Your task to perform on an android device: Clear the cart on ebay.com. Search for "apple airpods pro" on ebay.com, select the first entry, and add it to the cart. Image 0: 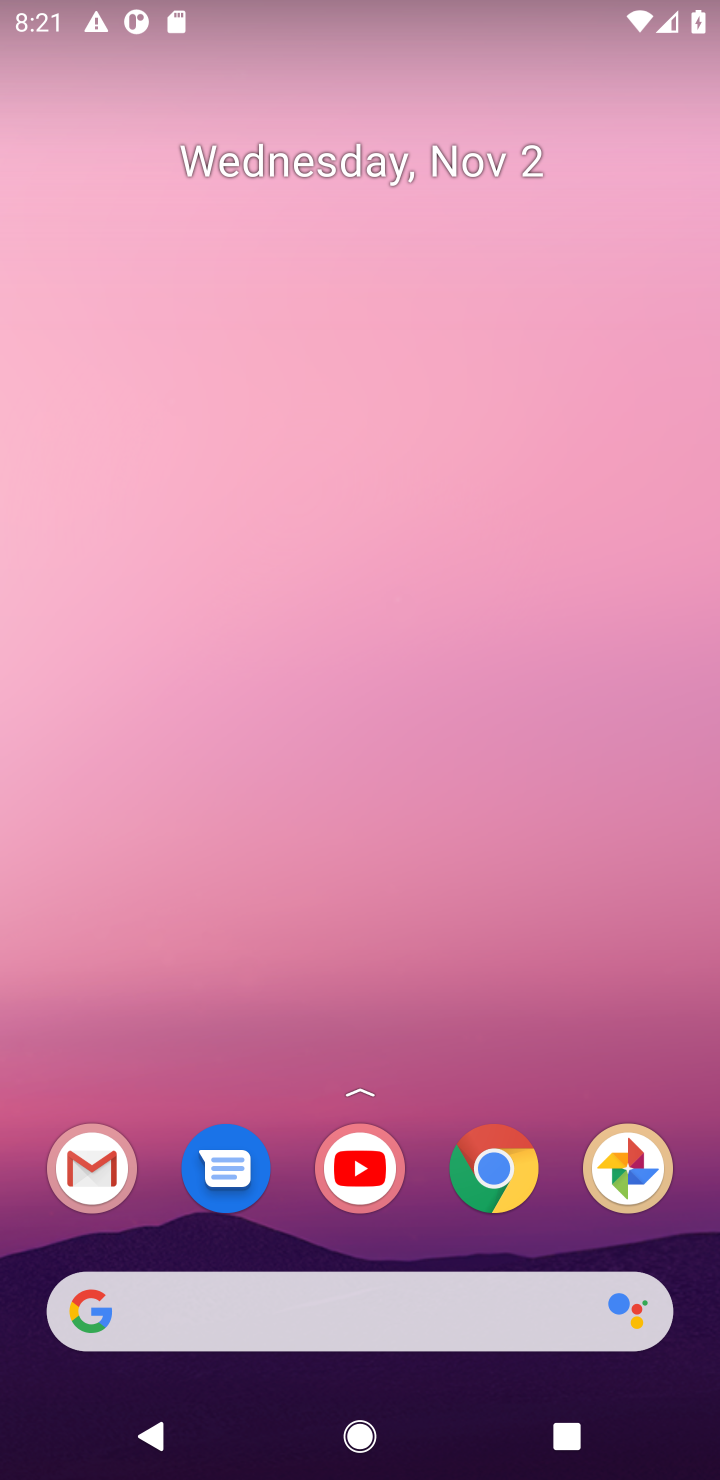
Step 0: click (500, 1170)
Your task to perform on an android device: Clear the cart on ebay.com. Search for "apple airpods pro" on ebay.com, select the first entry, and add it to the cart. Image 1: 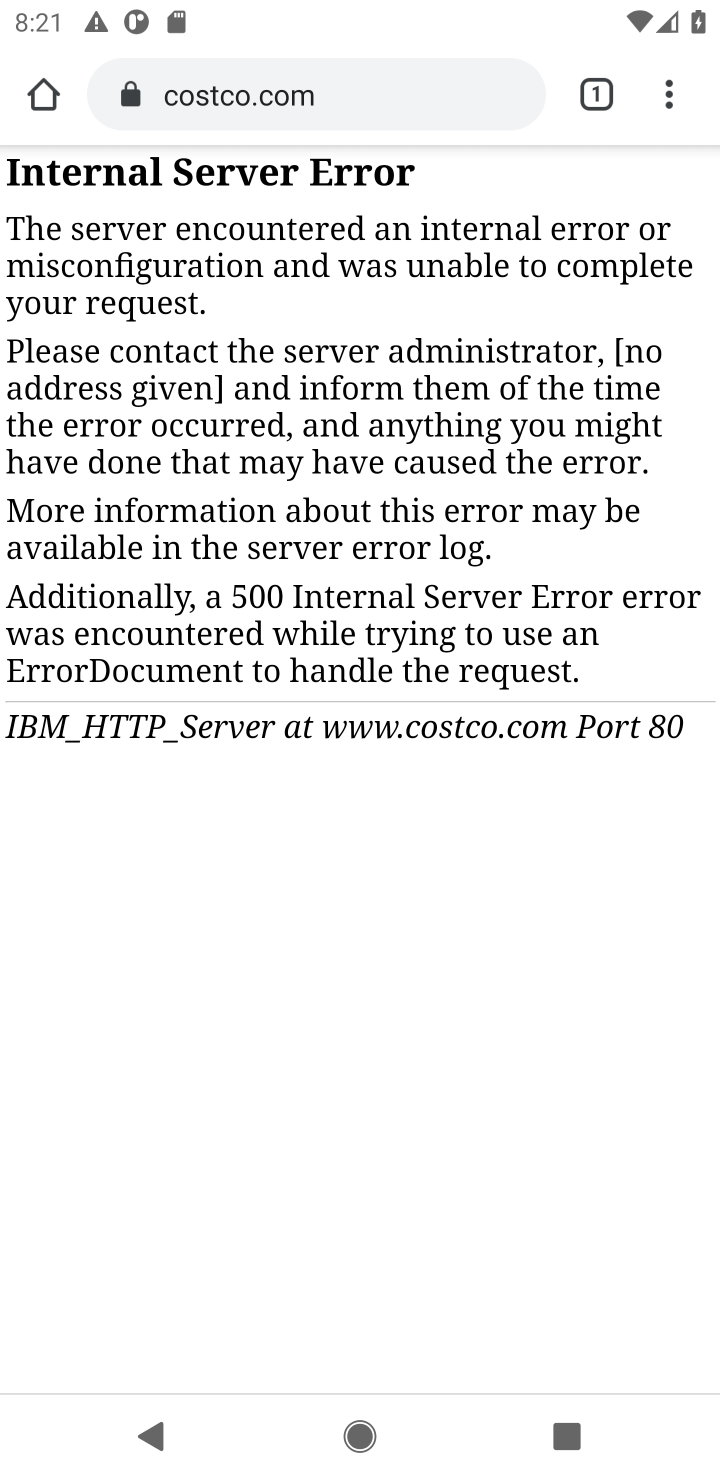
Step 1: click (442, 105)
Your task to perform on an android device: Clear the cart on ebay.com. Search for "apple airpods pro" on ebay.com, select the first entry, and add it to the cart. Image 2: 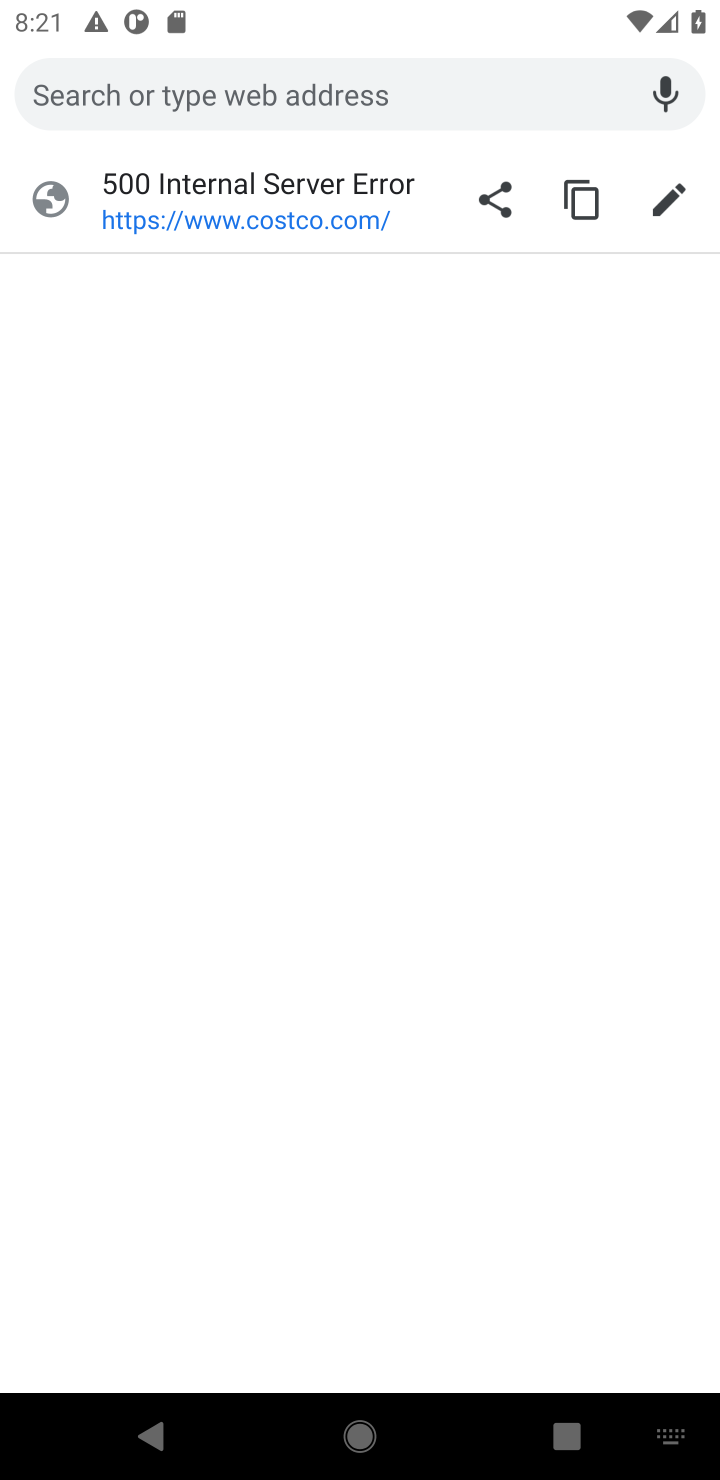
Step 2: type "ebay.com"
Your task to perform on an android device: Clear the cart on ebay.com. Search for "apple airpods pro" on ebay.com, select the first entry, and add it to the cart. Image 3: 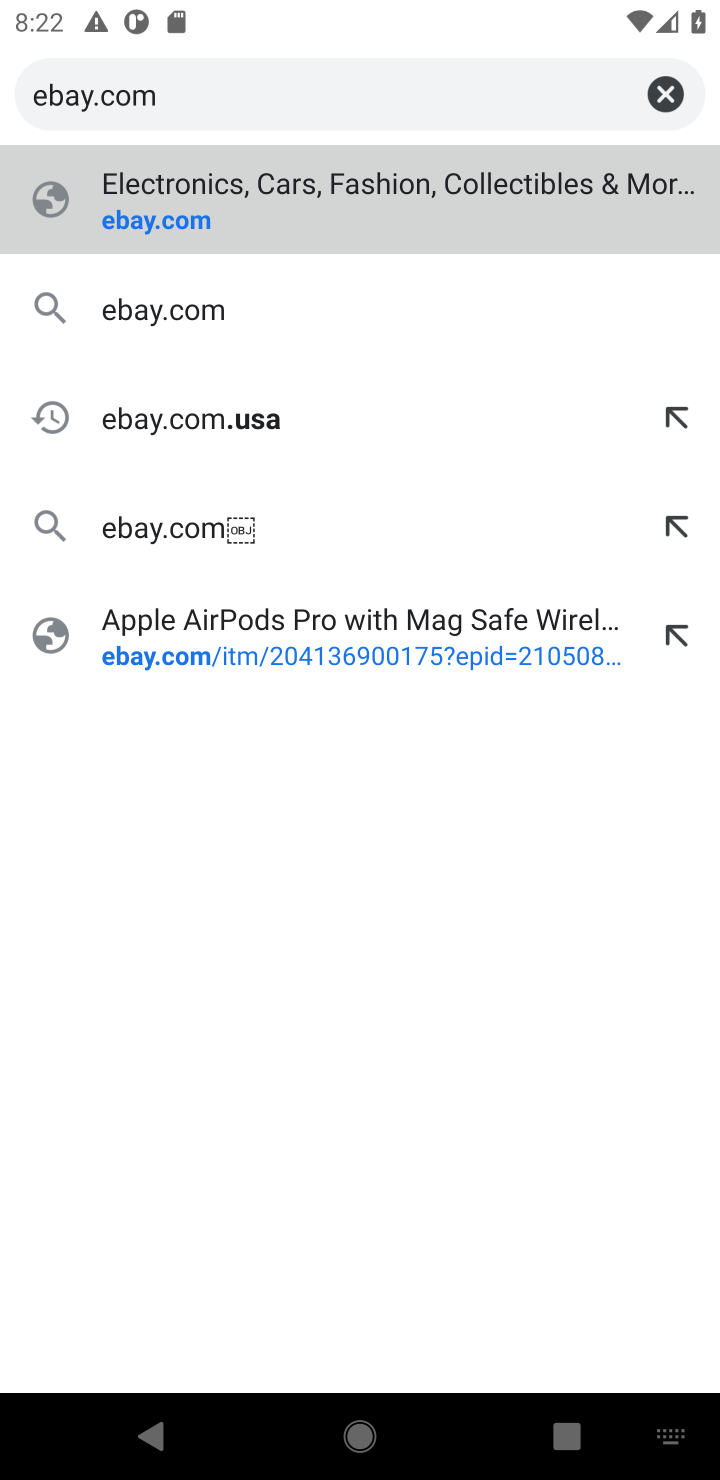
Step 3: click (176, 306)
Your task to perform on an android device: Clear the cart on ebay.com. Search for "apple airpods pro" on ebay.com, select the first entry, and add it to the cart. Image 4: 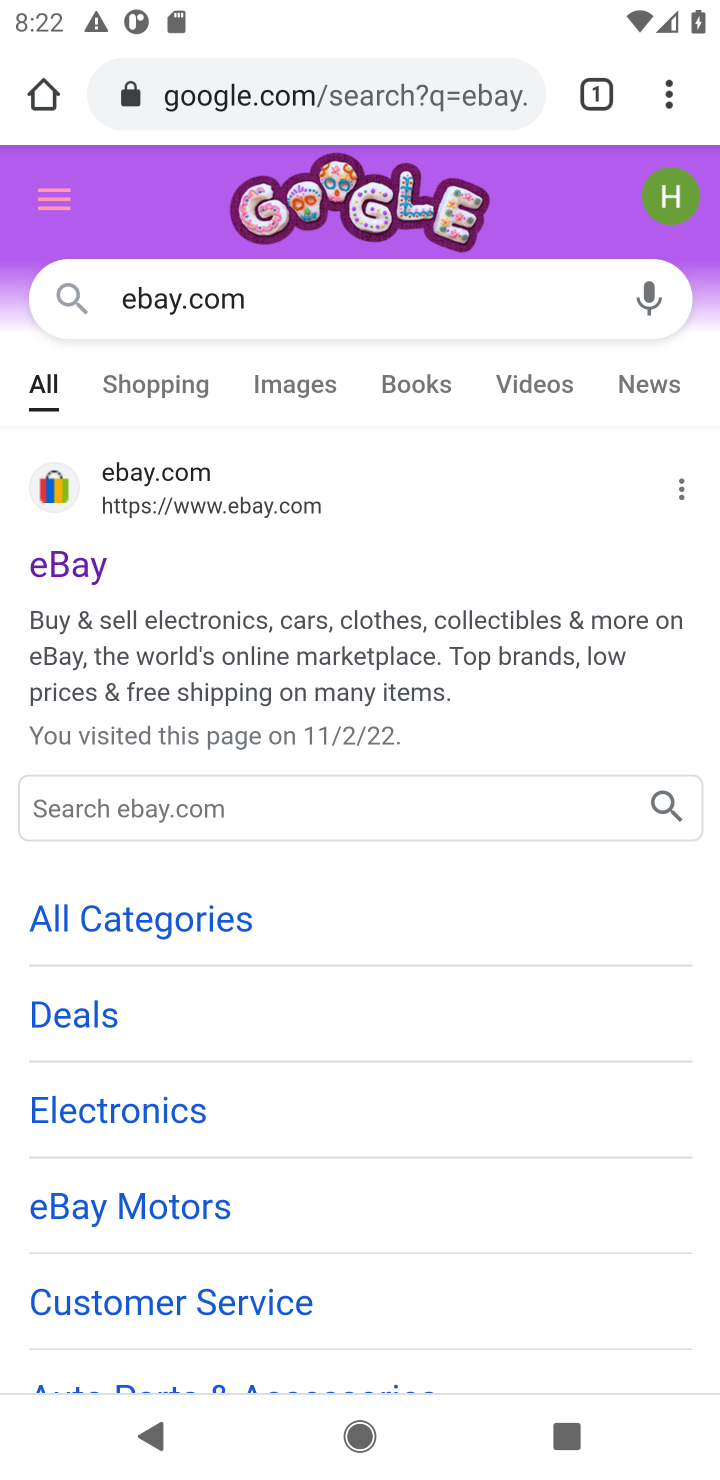
Step 4: click (187, 549)
Your task to perform on an android device: Clear the cart on ebay.com. Search for "apple airpods pro" on ebay.com, select the first entry, and add it to the cart. Image 5: 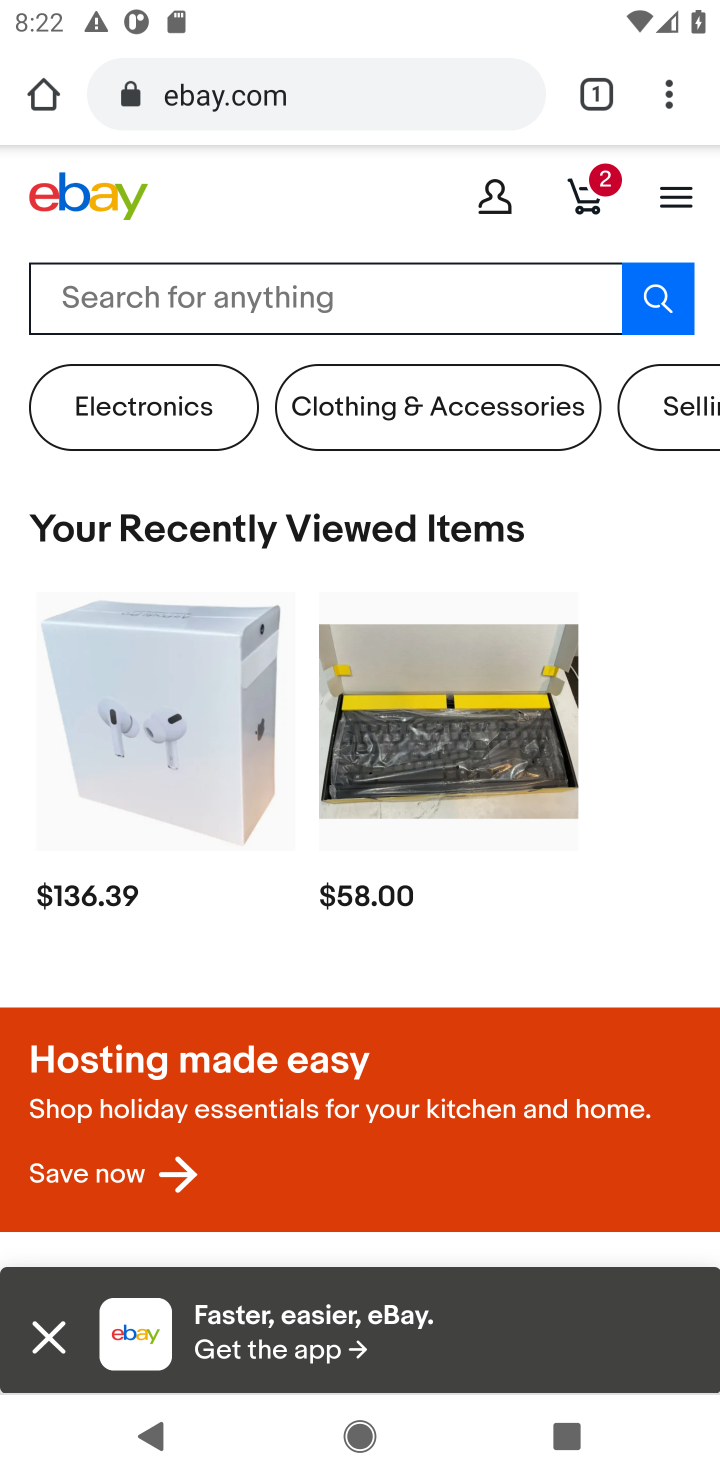
Step 5: click (594, 201)
Your task to perform on an android device: Clear the cart on ebay.com. Search for "apple airpods pro" on ebay.com, select the first entry, and add it to the cart. Image 6: 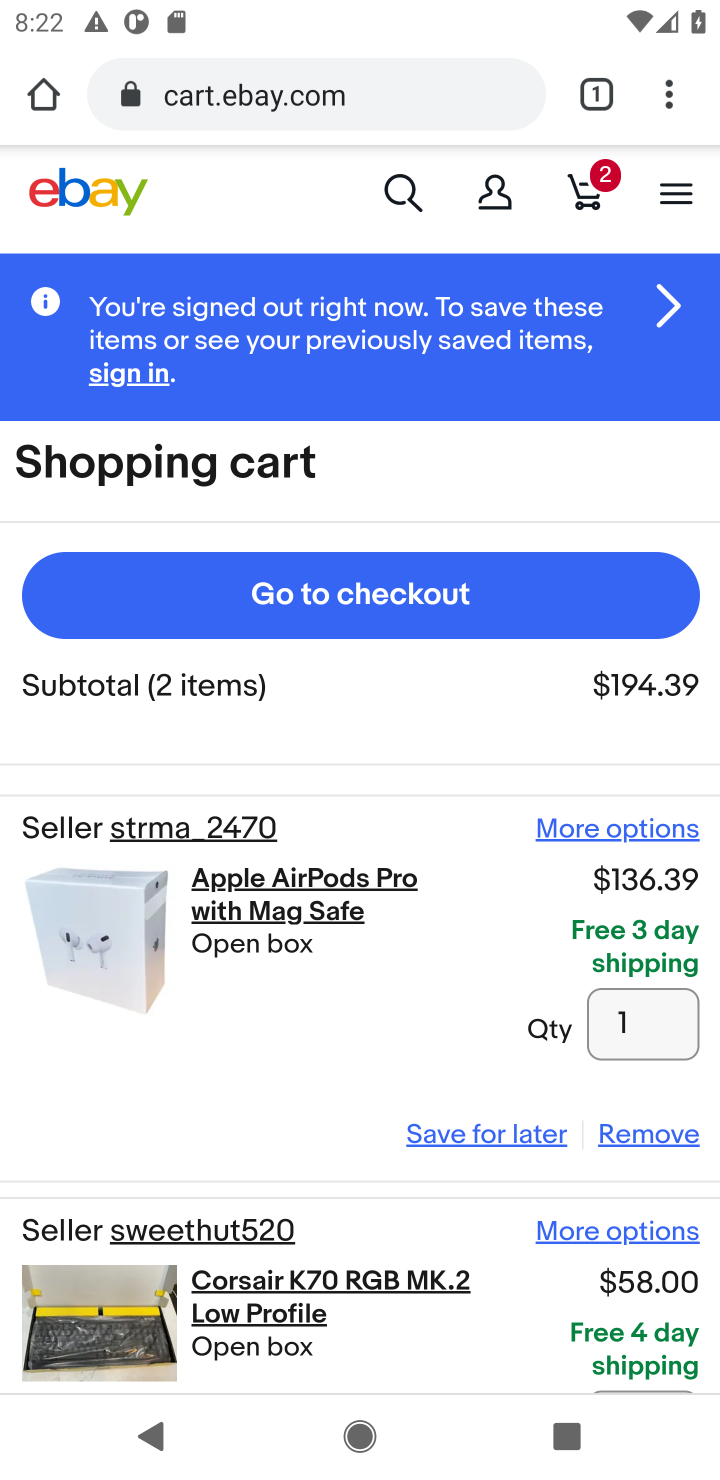
Step 6: click (634, 1138)
Your task to perform on an android device: Clear the cart on ebay.com. Search for "apple airpods pro" on ebay.com, select the first entry, and add it to the cart. Image 7: 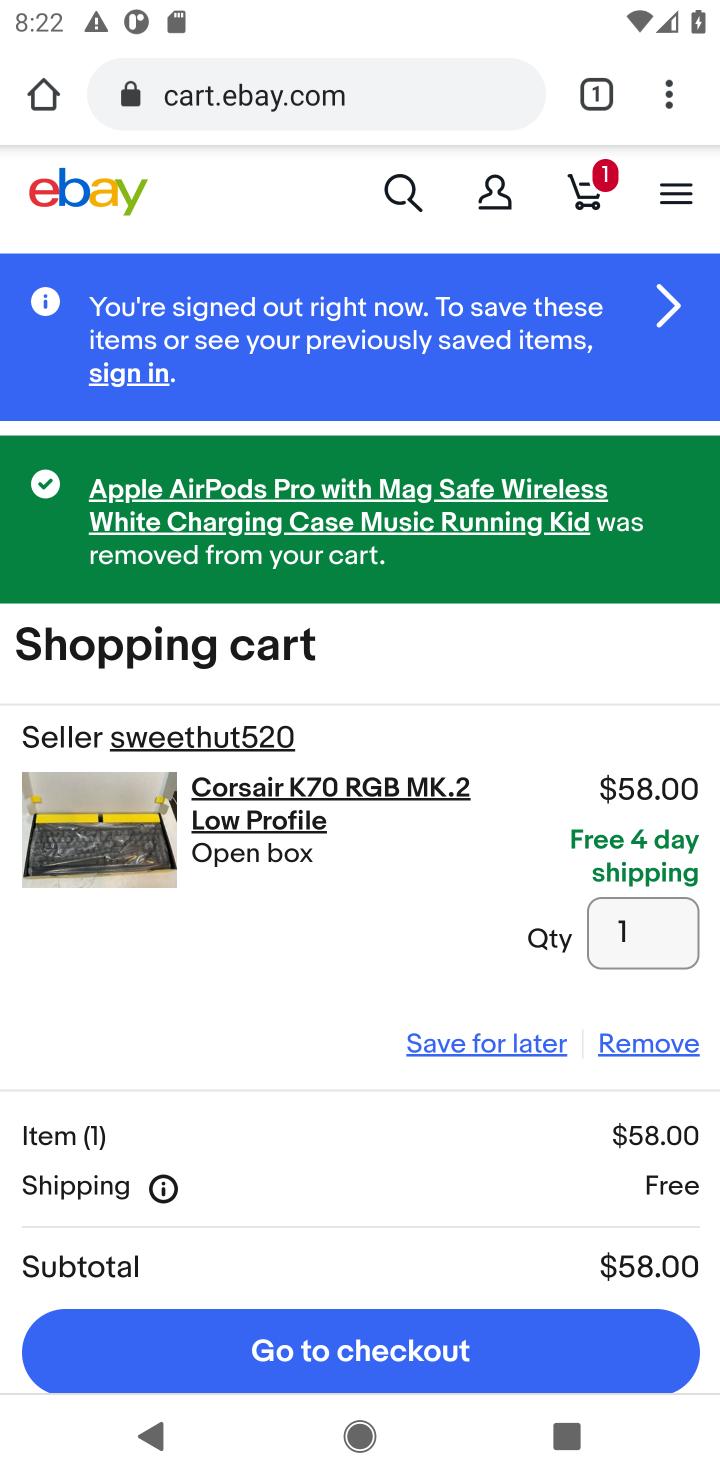
Step 7: click (655, 1051)
Your task to perform on an android device: Clear the cart on ebay.com. Search for "apple airpods pro" on ebay.com, select the first entry, and add it to the cart. Image 8: 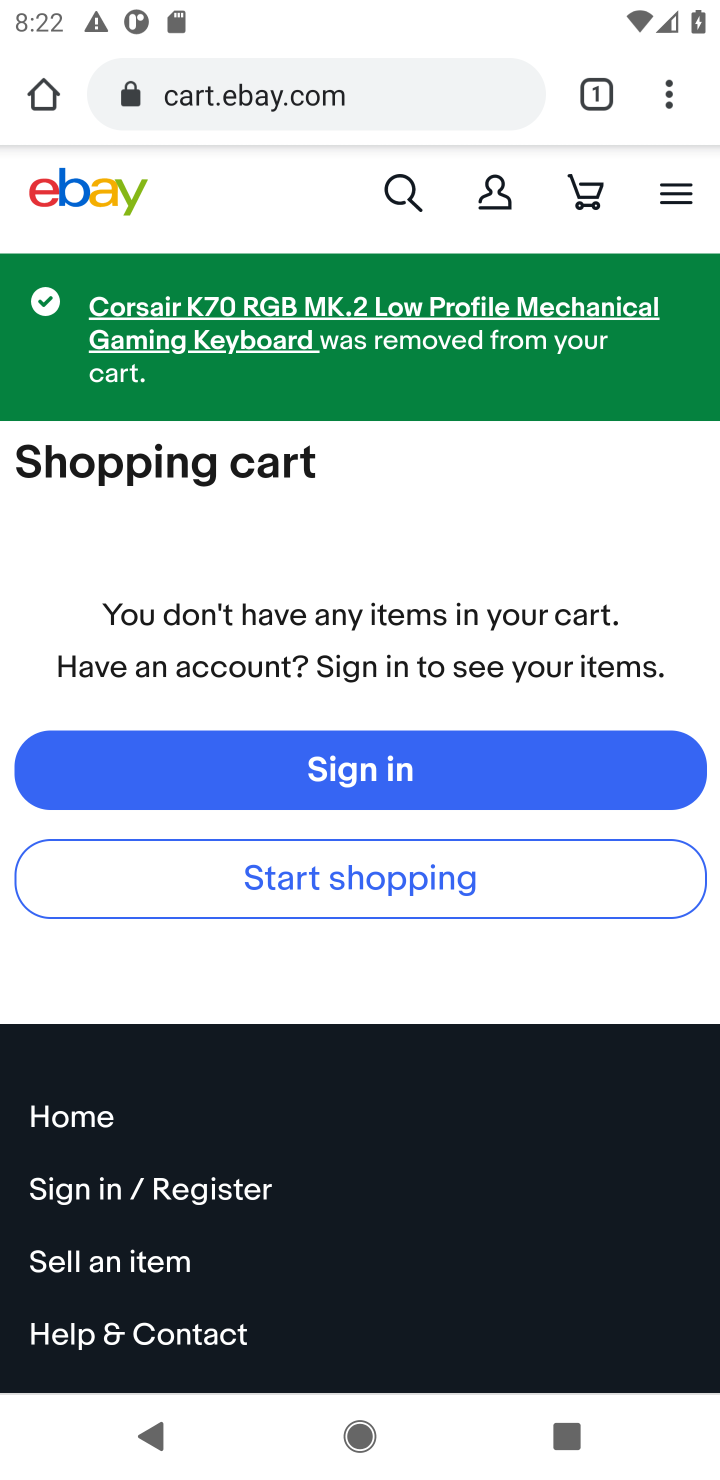
Step 8: click (395, 187)
Your task to perform on an android device: Clear the cart on ebay.com. Search for "apple airpods pro" on ebay.com, select the first entry, and add it to the cart. Image 9: 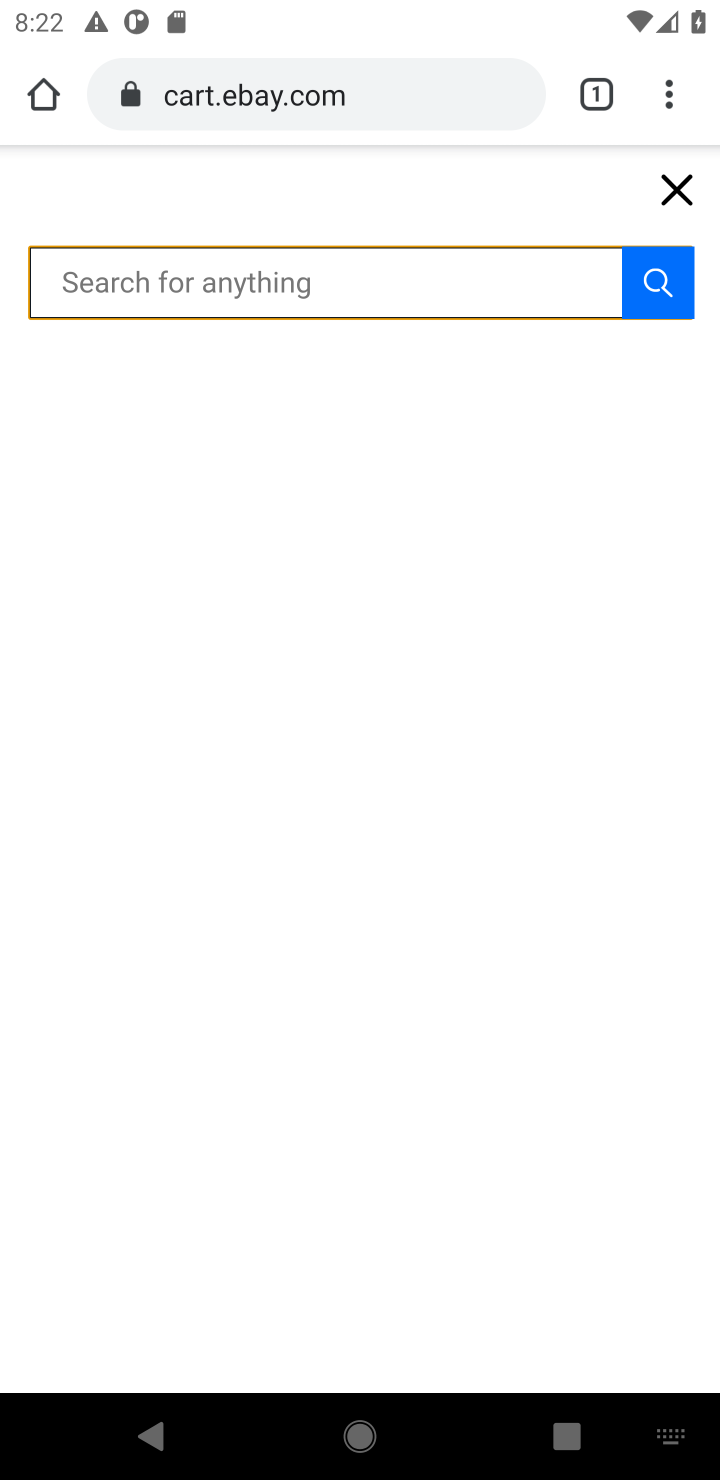
Step 9: type "apple airpods pro"
Your task to perform on an android device: Clear the cart on ebay.com. Search for "apple airpods pro" on ebay.com, select the first entry, and add it to the cart. Image 10: 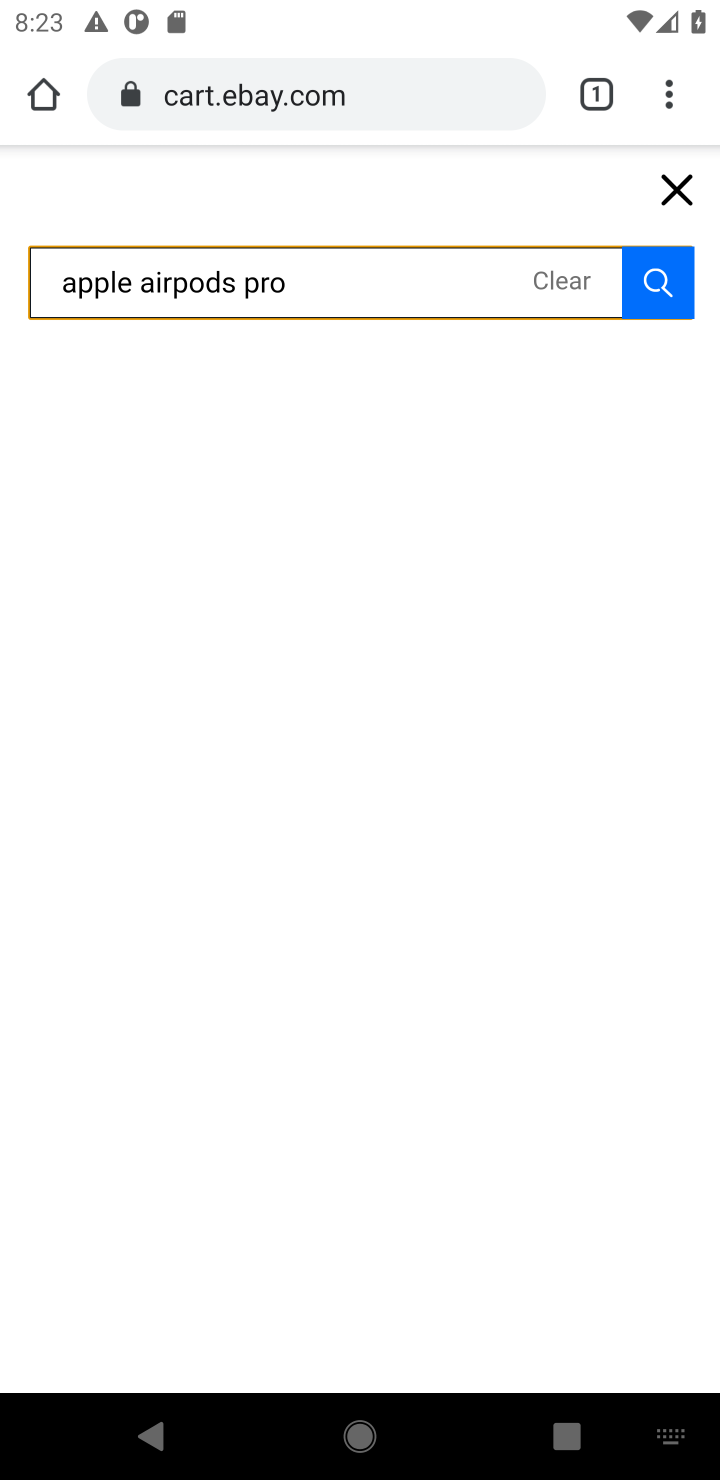
Step 10: click (661, 283)
Your task to perform on an android device: Clear the cart on ebay.com. Search for "apple airpods pro" on ebay.com, select the first entry, and add it to the cart. Image 11: 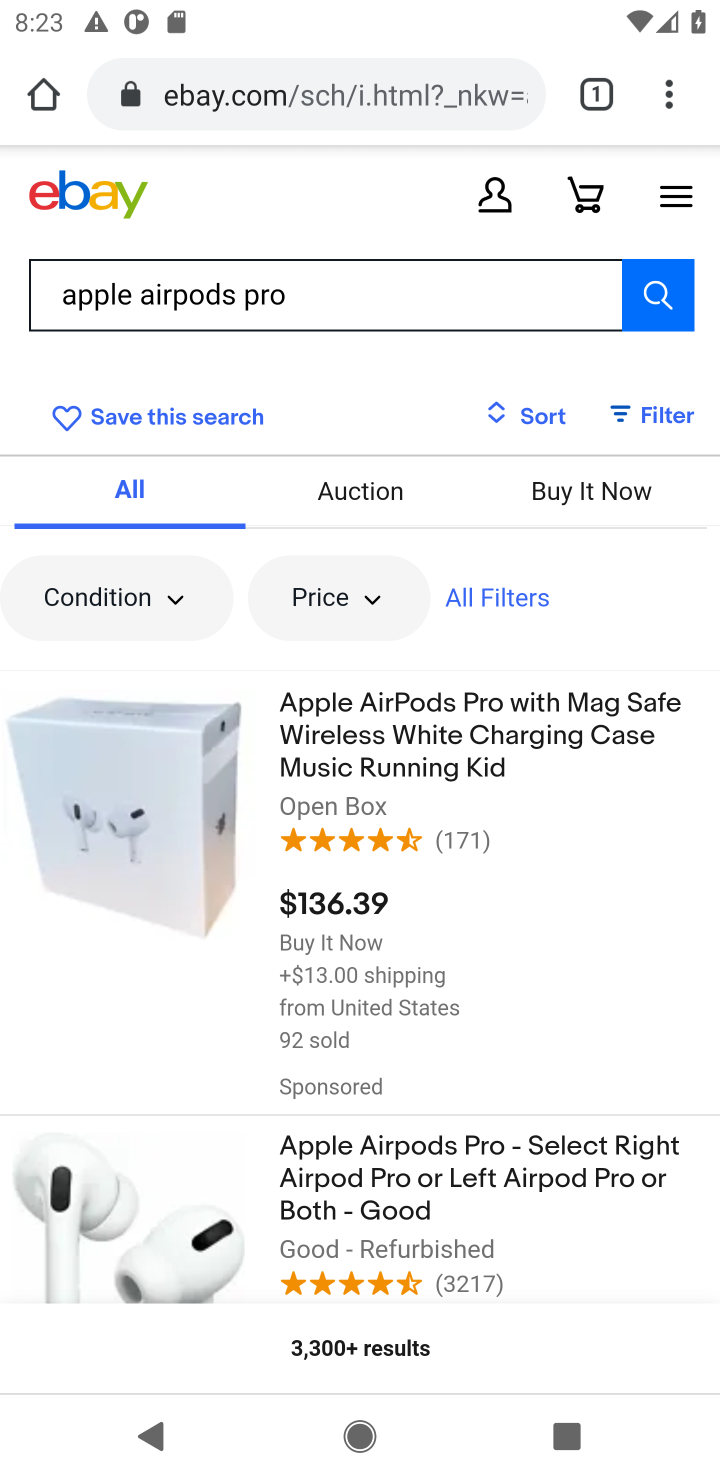
Step 11: click (420, 743)
Your task to perform on an android device: Clear the cart on ebay.com. Search for "apple airpods pro" on ebay.com, select the first entry, and add it to the cart. Image 12: 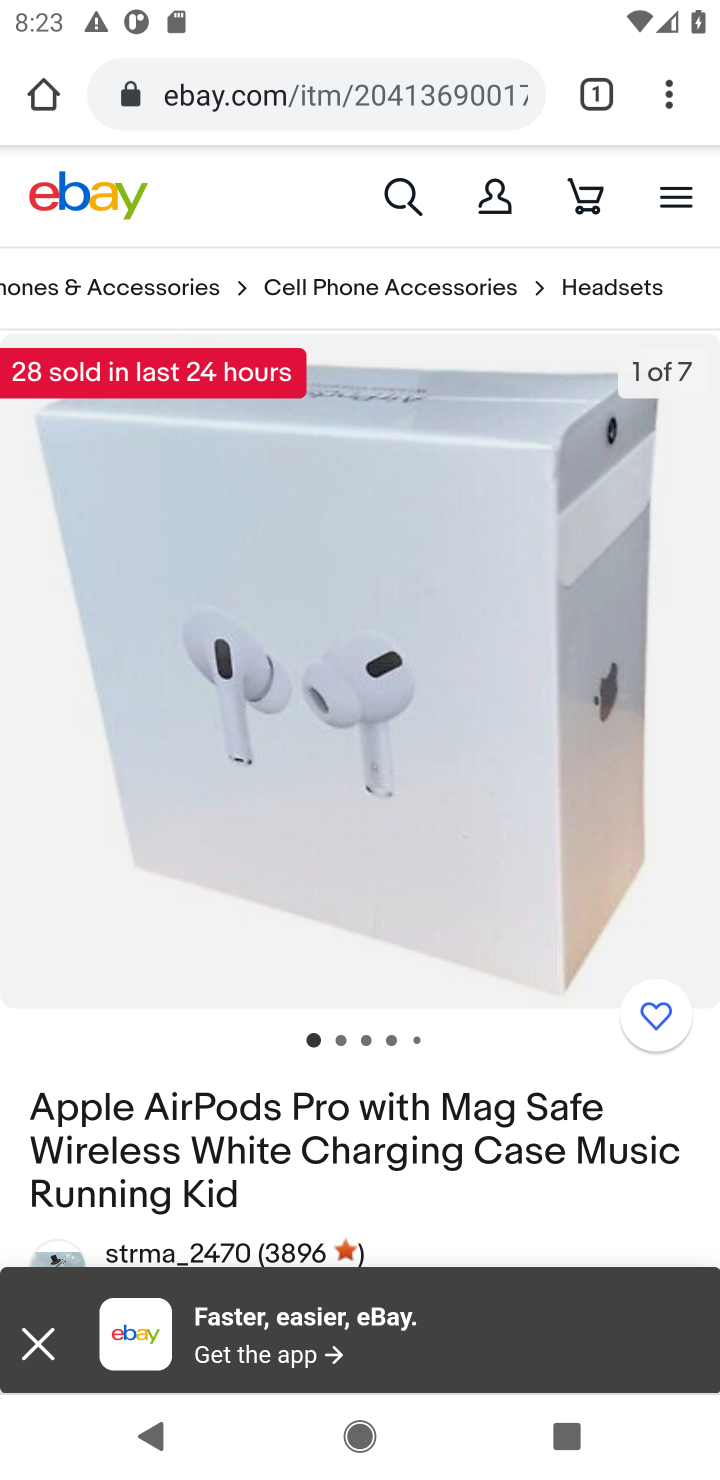
Step 12: drag from (498, 1197) to (500, 635)
Your task to perform on an android device: Clear the cart on ebay.com. Search for "apple airpods pro" on ebay.com, select the first entry, and add it to the cart. Image 13: 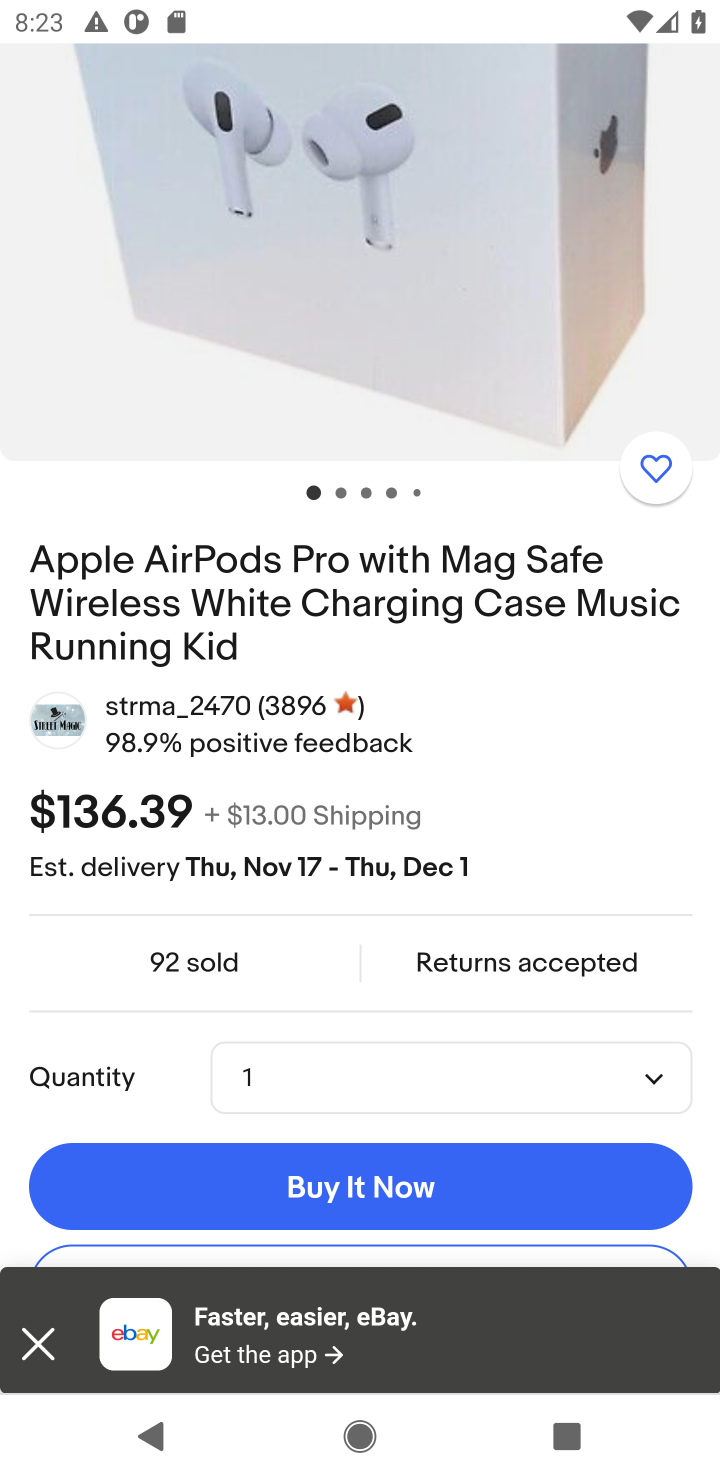
Step 13: drag from (538, 821) to (534, 417)
Your task to perform on an android device: Clear the cart on ebay.com. Search for "apple airpods pro" on ebay.com, select the first entry, and add it to the cart. Image 14: 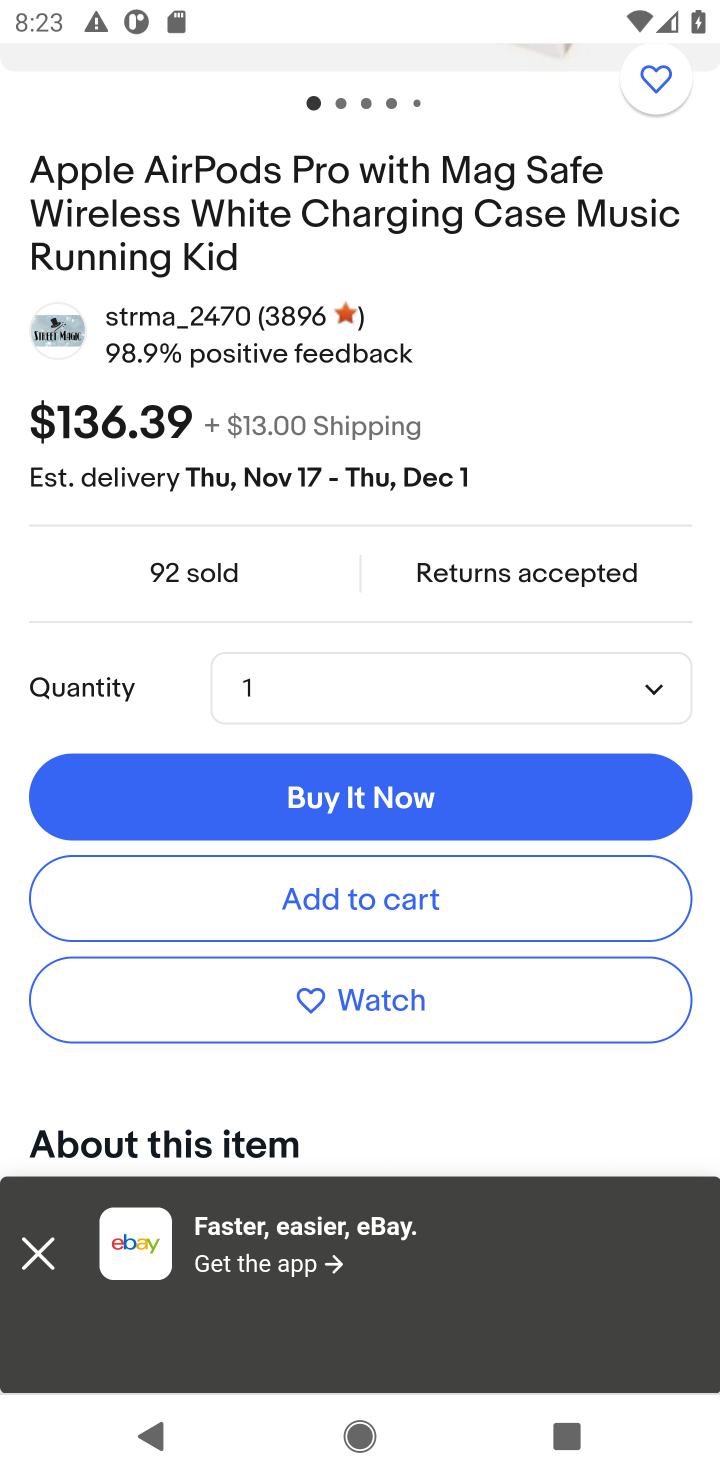
Step 14: click (375, 902)
Your task to perform on an android device: Clear the cart on ebay.com. Search for "apple airpods pro" on ebay.com, select the first entry, and add it to the cart. Image 15: 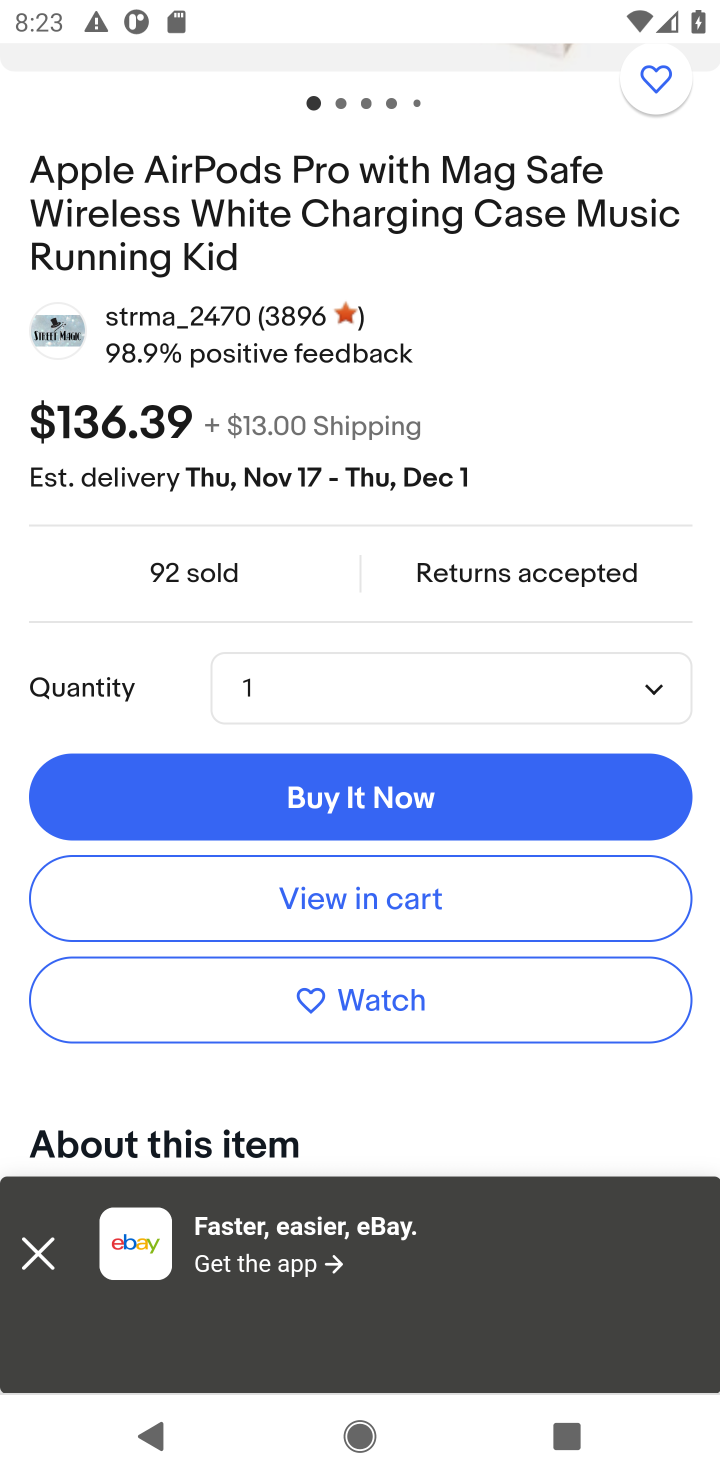
Step 15: click (375, 902)
Your task to perform on an android device: Clear the cart on ebay.com. Search for "apple airpods pro" on ebay.com, select the first entry, and add it to the cart. Image 16: 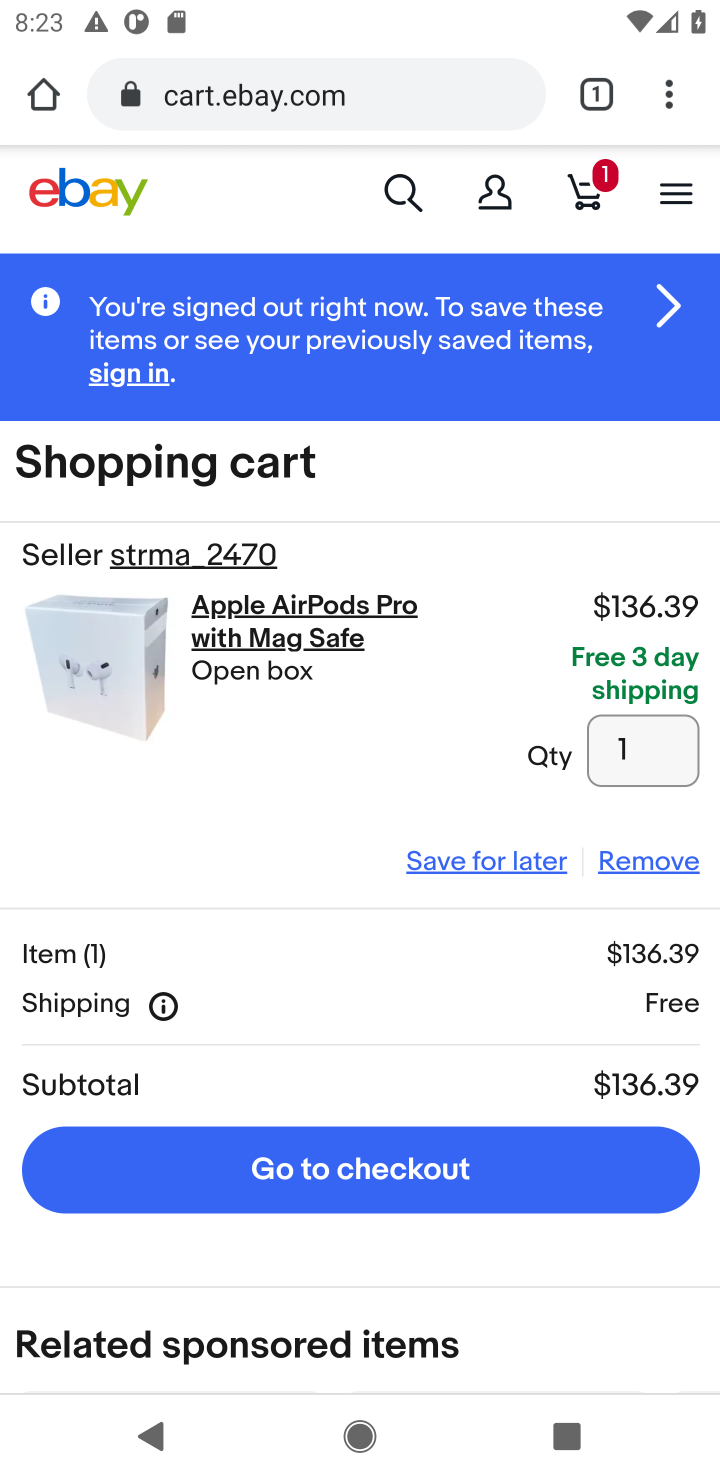
Step 16: task complete